Your task to perform on an android device: When is my next appointment? Image 0: 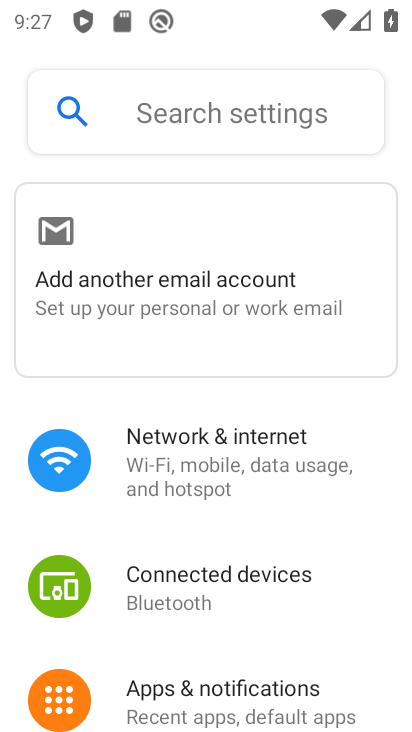
Step 0: press home button
Your task to perform on an android device: When is my next appointment? Image 1: 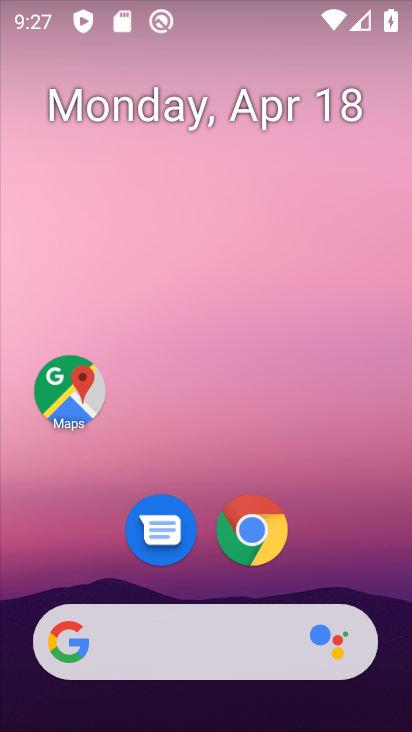
Step 1: drag from (337, 552) to (379, 68)
Your task to perform on an android device: When is my next appointment? Image 2: 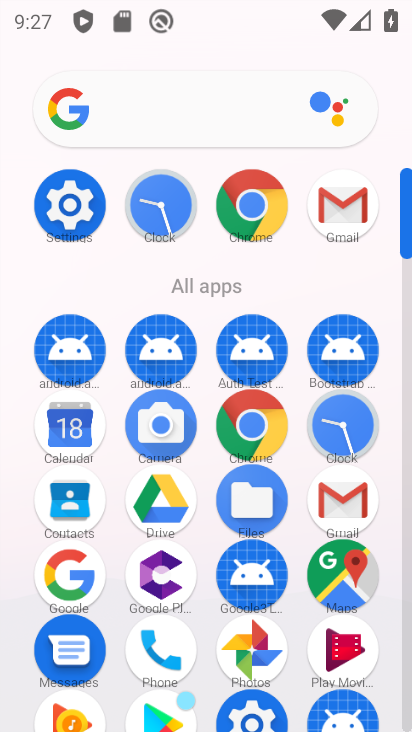
Step 2: click (71, 434)
Your task to perform on an android device: When is my next appointment? Image 3: 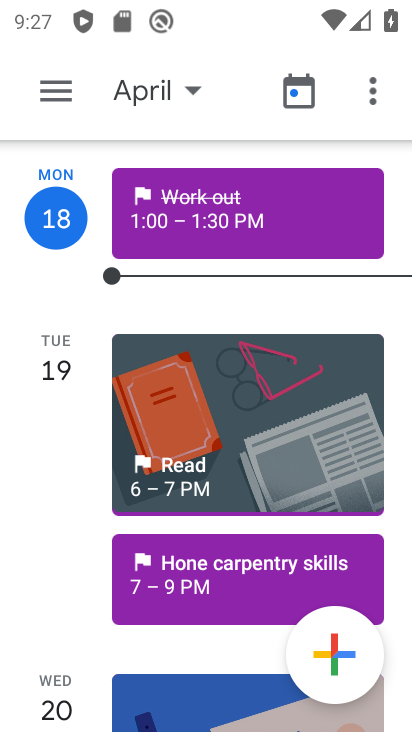
Step 3: click (61, 97)
Your task to perform on an android device: When is my next appointment? Image 4: 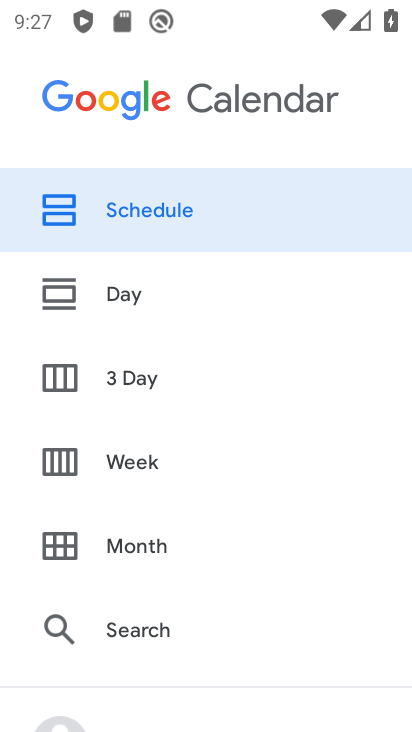
Step 4: drag from (236, 522) to (247, 293)
Your task to perform on an android device: When is my next appointment? Image 5: 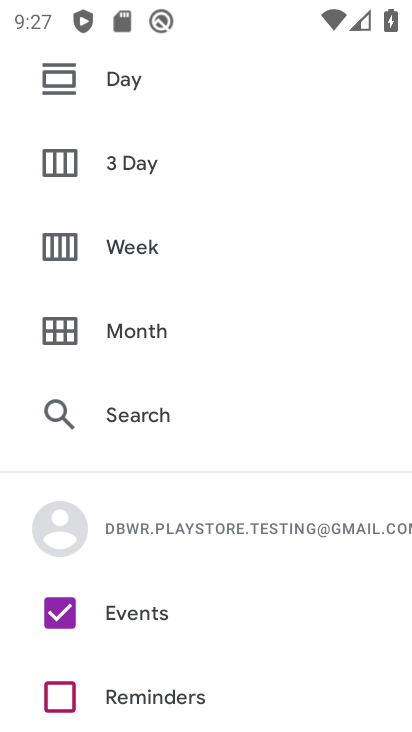
Step 5: drag from (226, 585) to (246, 248)
Your task to perform on an android device: When is my next appointment? Image 6: 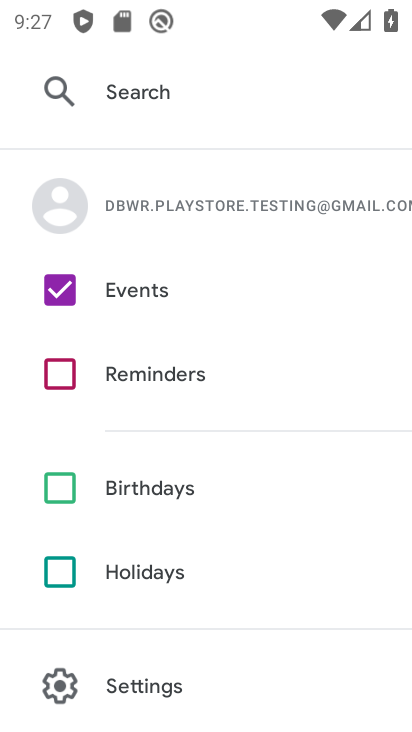
Step 6: click (49, 382)
Your task to perform on an android device: When is my next appointment? Image 7: 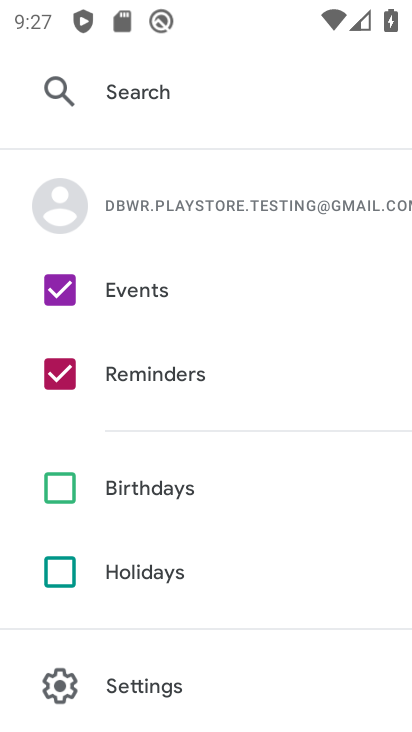
Step 7: drag from (248, 241) to (248, 659)
Your task to perform on an android device: When is my next appointment? Image 8: 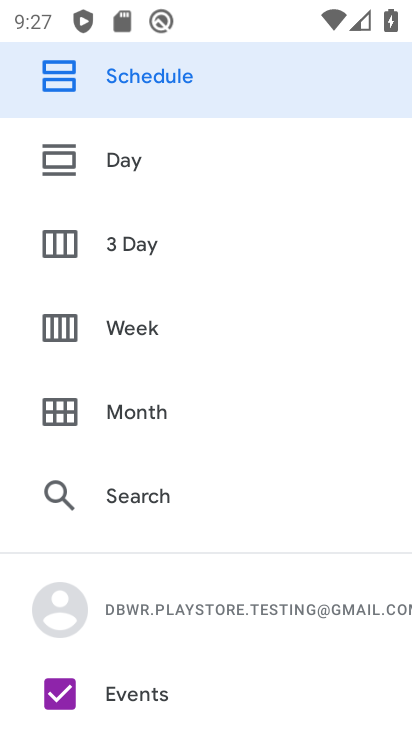
Step 8: drag from (250, 266) to (246, 546)
Your task to perform on an android device: When is my next appointment? Image 9: 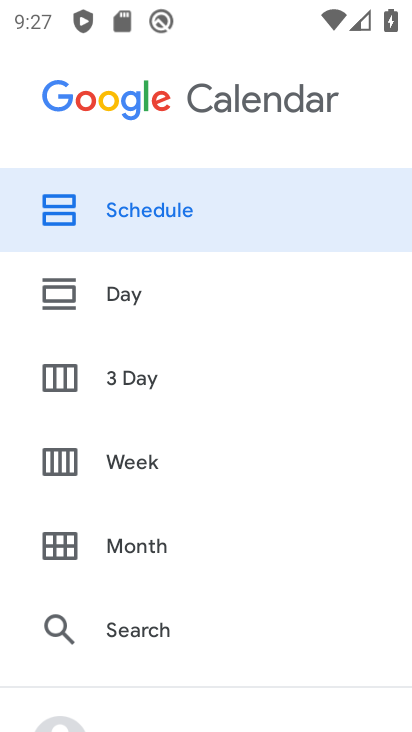
Step 9: click (141, 215)
Your task to perform on an android device: When is my next appointment? Image 10: 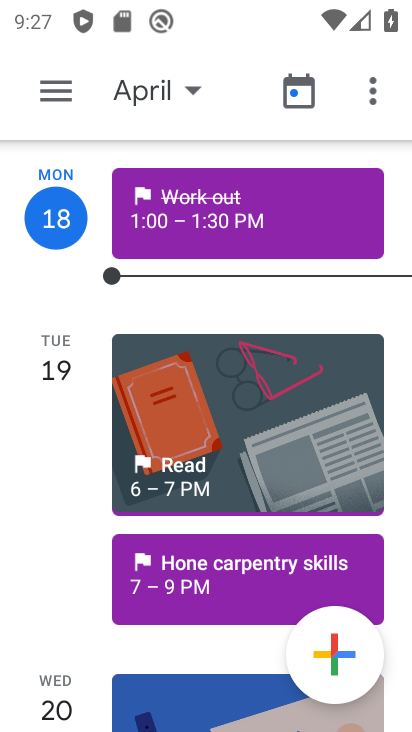
Step 10: click (230, 273)
Your task to perform on an android device: When is my next appointment? Image 11: 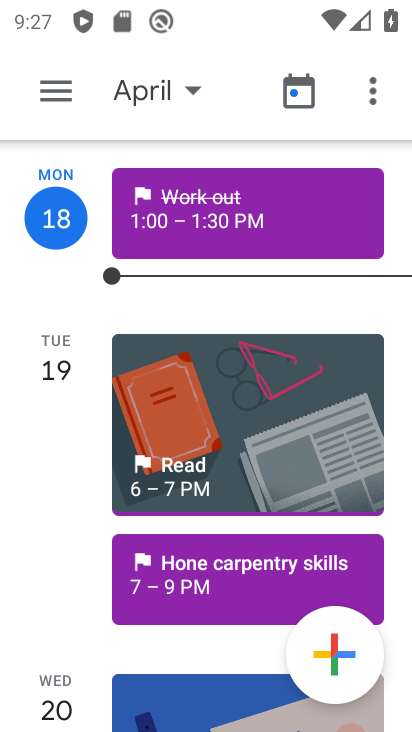
Step 11: drag from (237, 529) to (241, 317)
Your task to perform on an android device: When is my next appointment? Image 12: 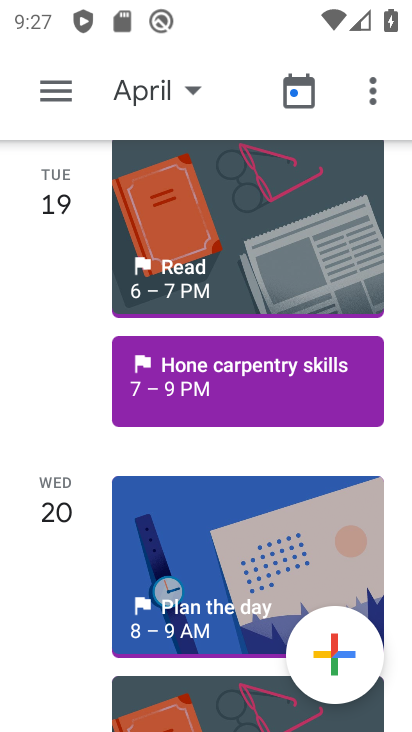
Step 12: drag from (241, 519) to (241, 277)
Your task to perform on an android device: When is my next appointment? Image 13: 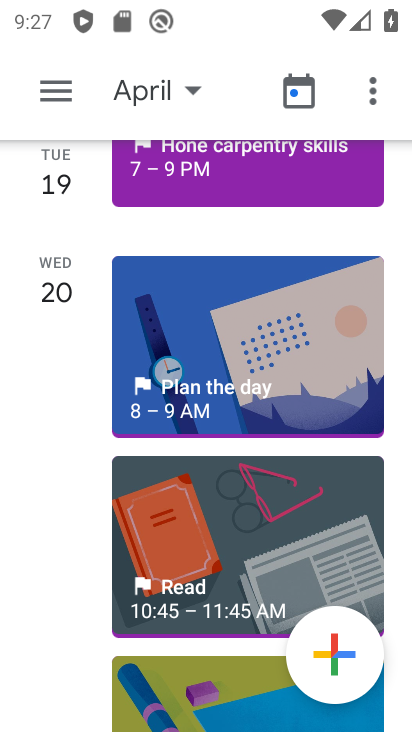
Step 13: drag from (224, 492) to (245, 268)
Your task to perform on an android device: When is my next appointment? Image 14: 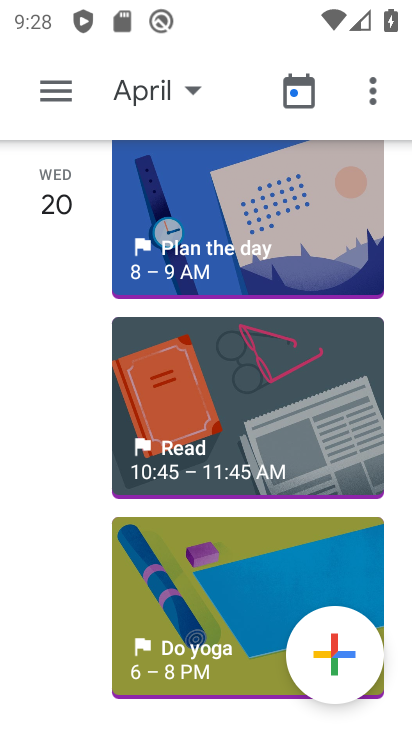
Step 14: drag from (203, 481) to (221, 230)
Your task to perform on an android device: When is my next appointment? Image 15: 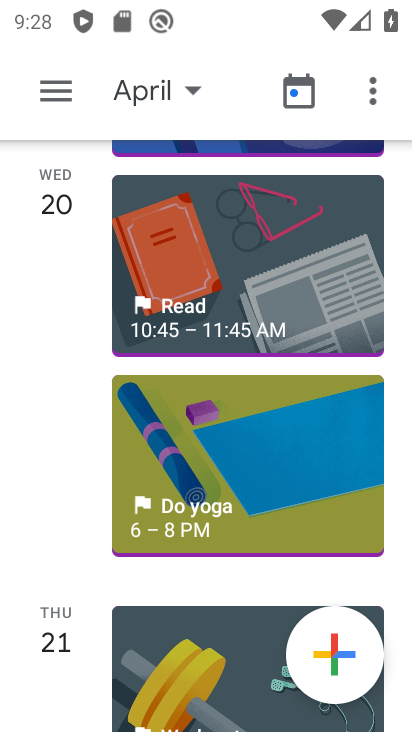
Step 15: drag from (217, 517) to (219, 256)
Your task to perform on an android device: When is my next appointment? Image 16: 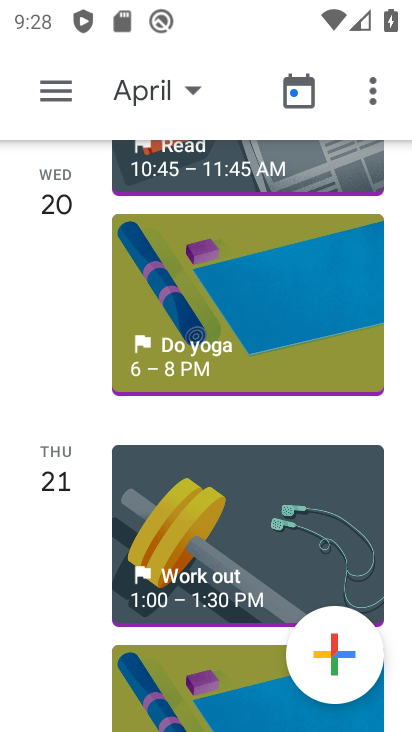
Step 16: drag from (218, 291) to (220, 237)
Your task to perform on an android device: When is my next appointment? Image 17: 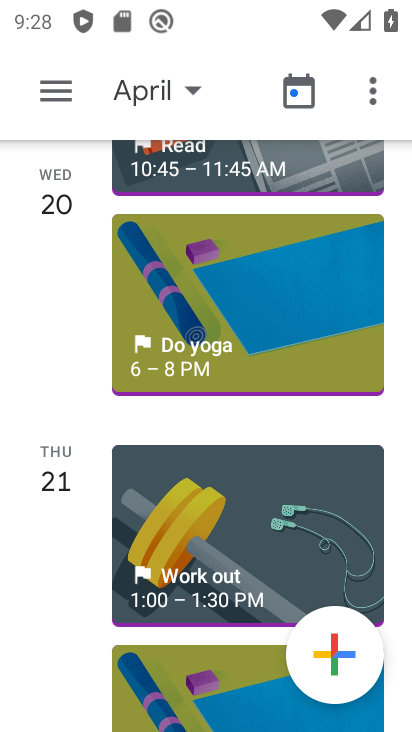
Step 17: drag from (224, 530) to (224, 279)
Your task to perform on an android device: When is my next appointment? Image 18: 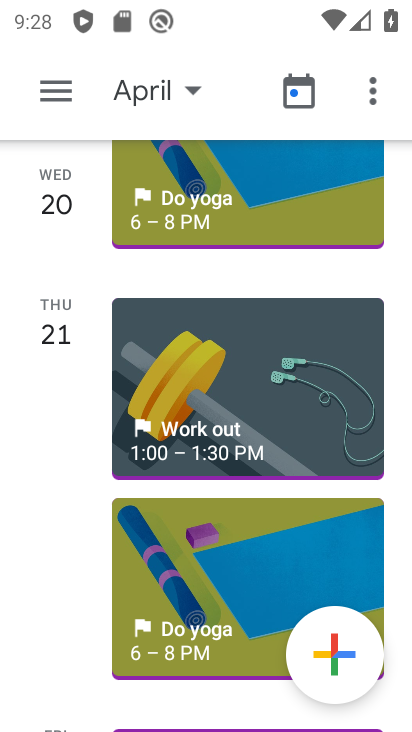
Step 18: drag from (235, 559) to (232, 284)
Your task to perform on an android device: When is my next appointment? Image 19: 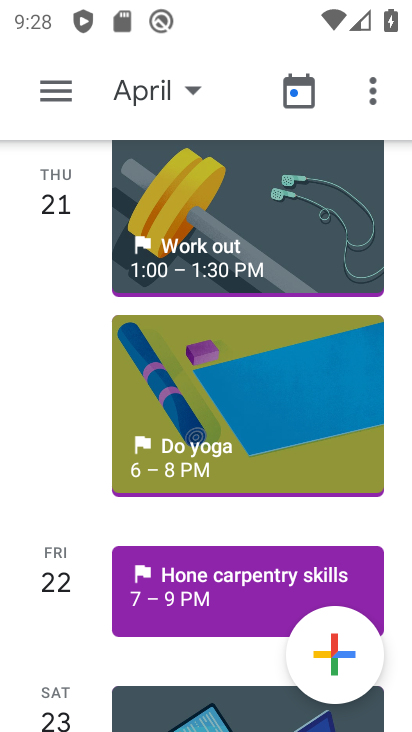
Step 19: drag from (220, 438) to (235, 266)
Your task to perform on an android device: When is my next appointment? Image 20: 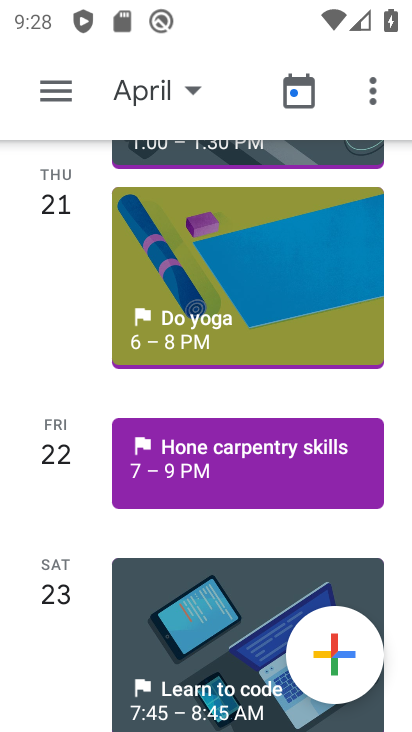
Step 20: drag from (202, 553) to (221, 303)
Your task to perform on an android device: When is my next appointment? Image 21: 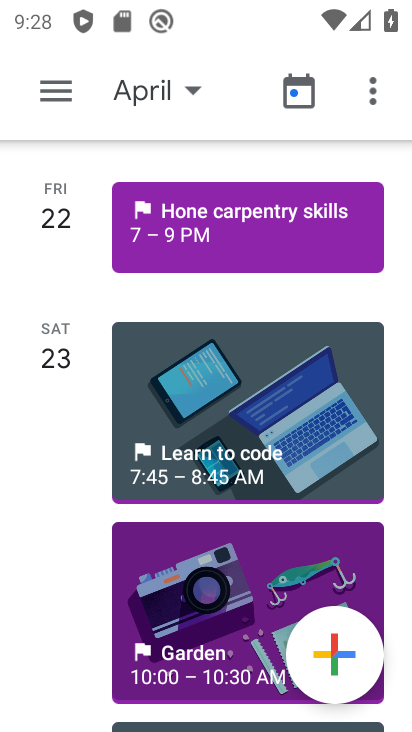
Step 21: drag from (211, 489) to (222, 377)
Your task to perform on an android device: When is my next appointment? Image 22: 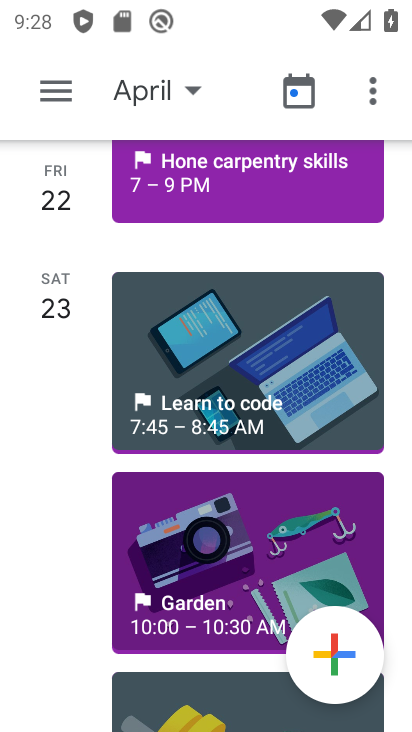
Step 22: drag from (219, 564) to (237, 353)
Your task to perform on an android device: When is my next appointment? Image 23: 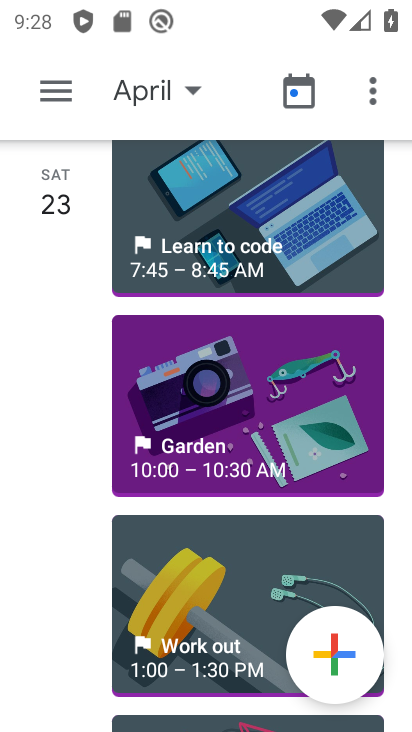
Step 23: drag from (219, 386) to (223, 337)
Your task to perform on an android device: When is my next appointment? Image 24: 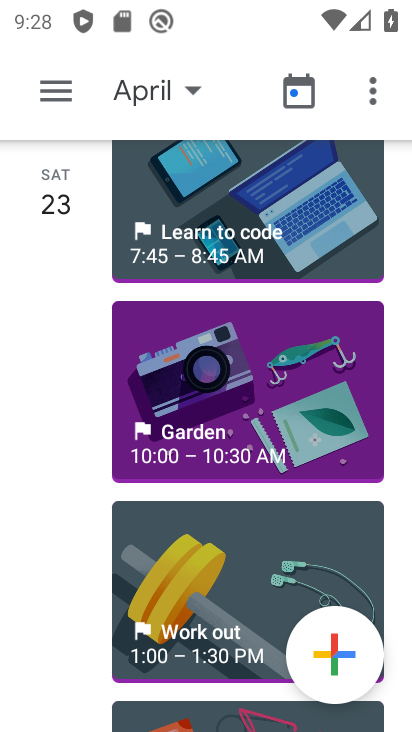
Step 24: drag from (227, 619) to (248, 355)
Your task to perform on an android device: When is my next appointment? Image 25: 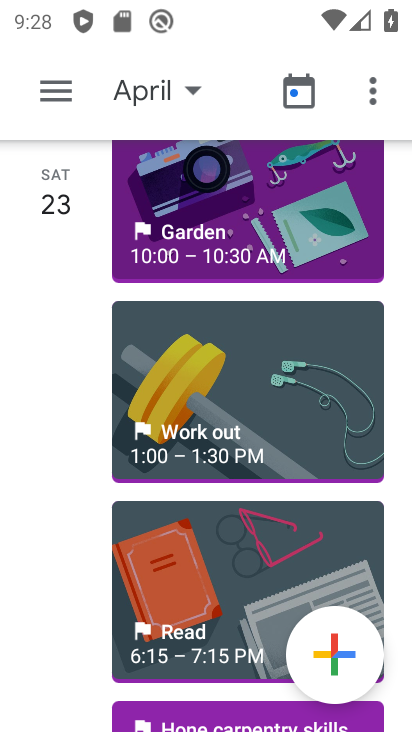
Step 25: drag from (223, 580) to (243, 345)
Your task to perform on an android device: When is my next appointment? Image 26: 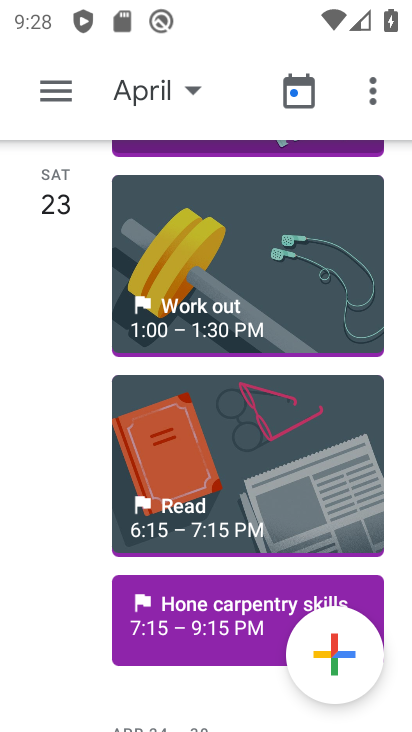
Step 26: drag from (207, 591) to (221, 367)
Your task to perform on an android device: When is my next appointment? Image 27: 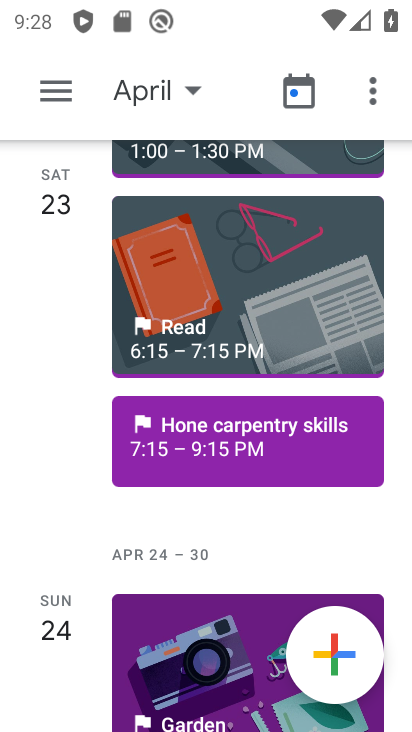
Step 27: drag from (248, 509) to (239, 278)
Your task to perform on an android device: When is my next appointment? Image 28: 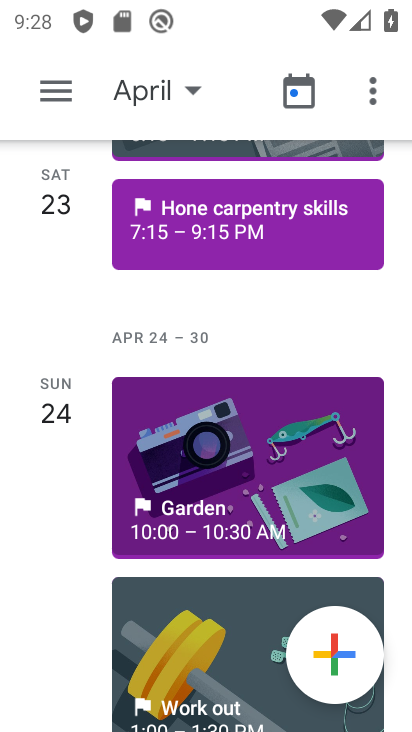
Step 28: drag from (181, 533) to (210, 279)
Your task to perform on an android device: When is my next appointment? Image 29: 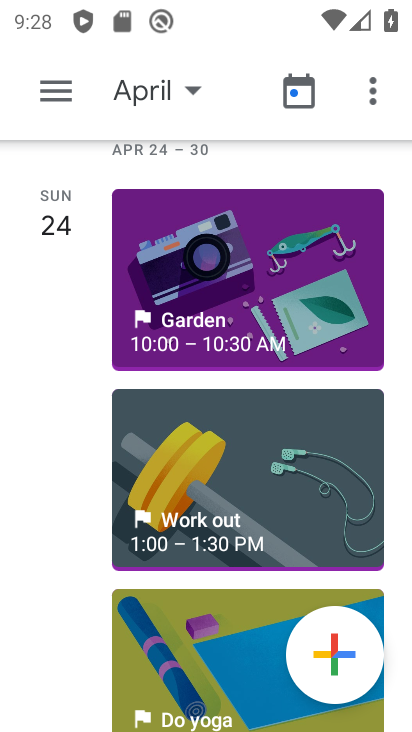
Step 29: drag from (228, 526) to (235, 305)
Your task to perform on an android device: When is my next appointment? Image 30: 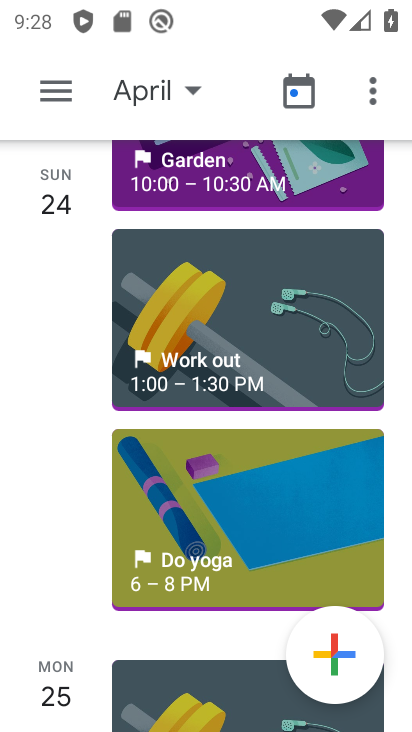
Step 30: drag from (182, 594) to (224, 337)
Your task to perform on an android device: When is my next appointment? Image 31: 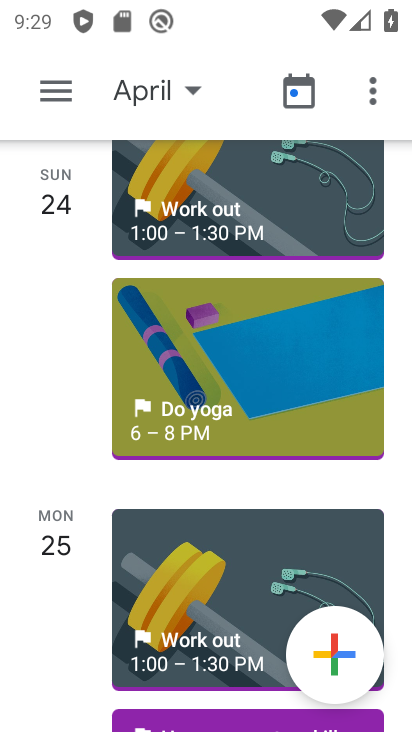
Step 31: drag from (189, 596) to (213, 389)
Your task to perform on an android device: When is my next appointment? Image 32: 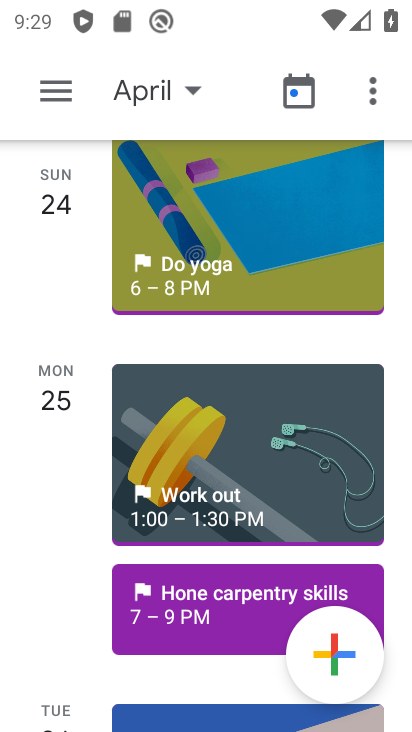
Step 32: drag from (193, 580) to (202, 391)
Your task to perform on an android device: When is my next appointment? Image 33: 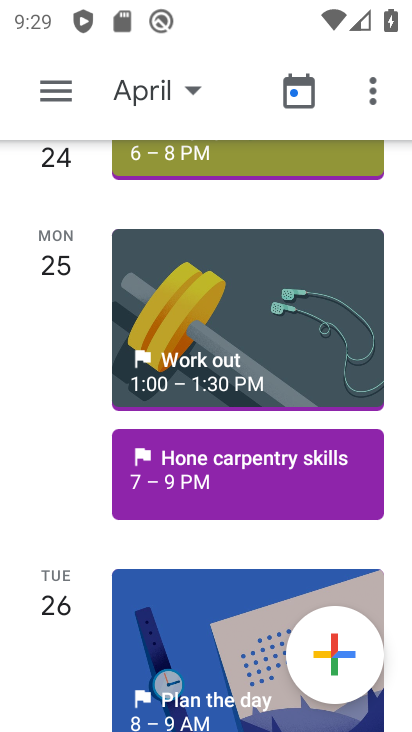
Step 33: drag from (198, 543) to (202, 380)
Your task to perform on an android device: When is my next appointment? Image 34: 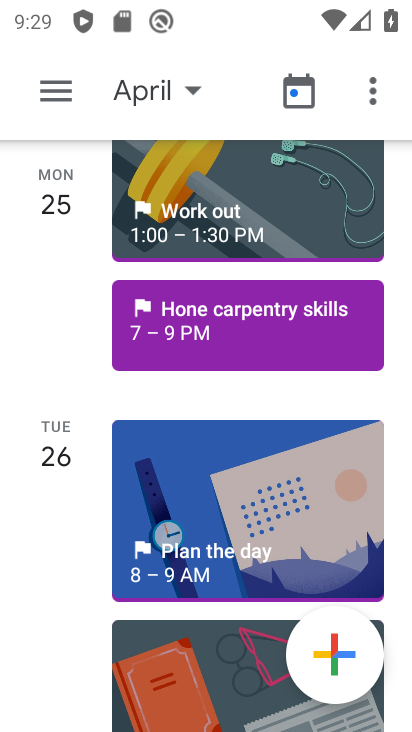
Step 34: click (291, 105)
Your task to perform on an android device: When is my next appointment? Image 35: 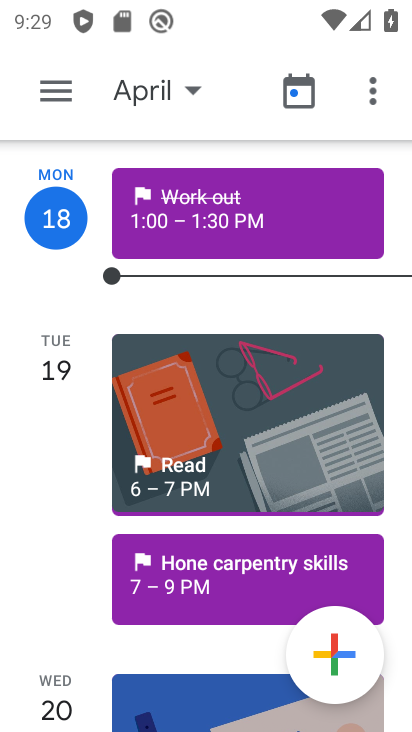
Step 35: task complete